Your task to perform on an android device: Check the news Image 0: 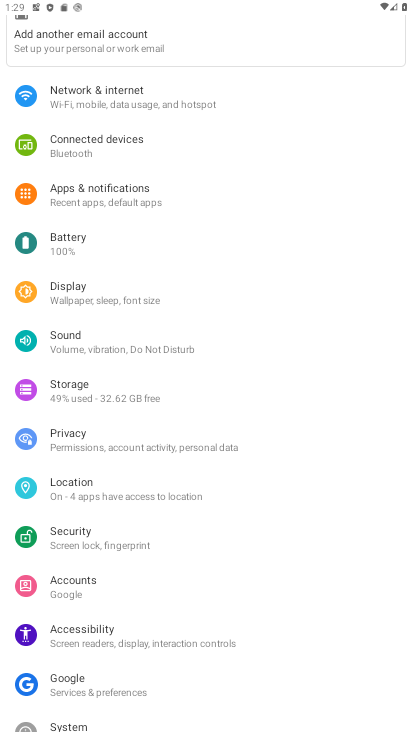
Step 0: press home button
Your task to perform on an android device: Check the news Image 1: 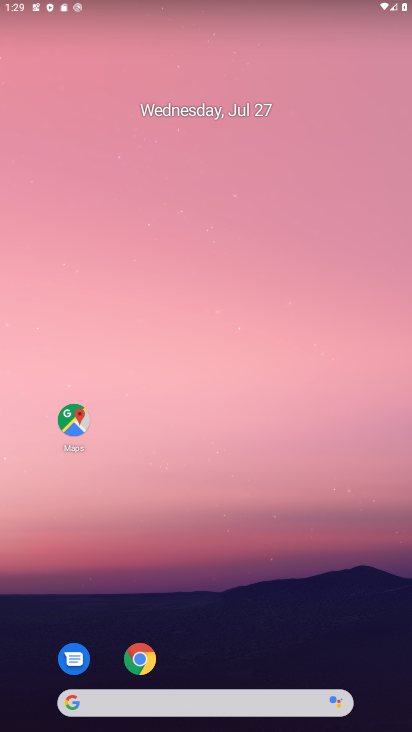
Step 1: drag from (271, 452) to (236, 34)
Your task to perform on an android device: Check the news Image 2: 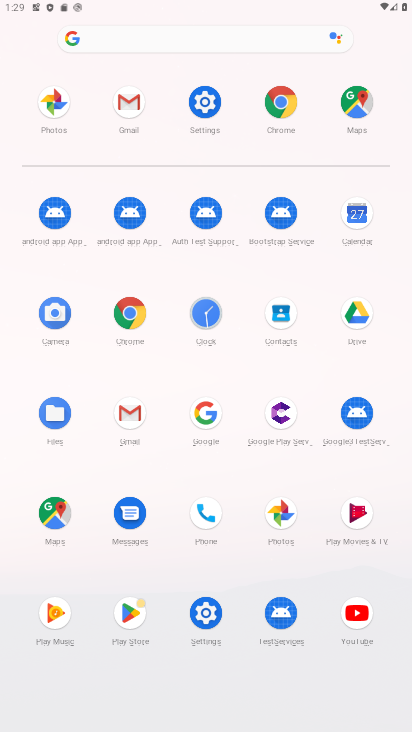
Step 2: click (133, 317)
Your task to perform on an android device: Check the news Image 3: 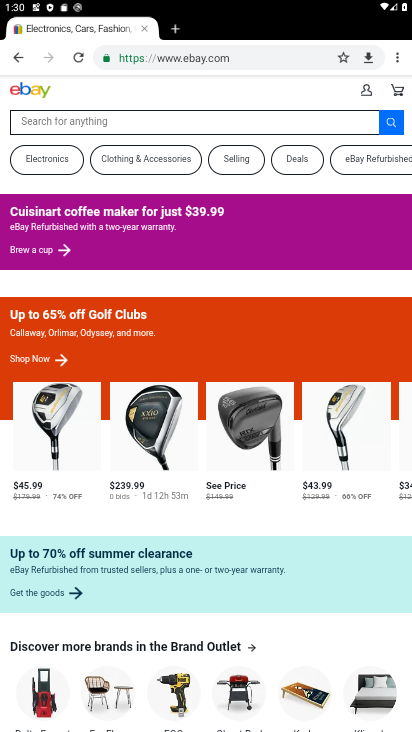
Step 3: click (280, 54)
Your task to perform on an android device: Check the news Image 4: 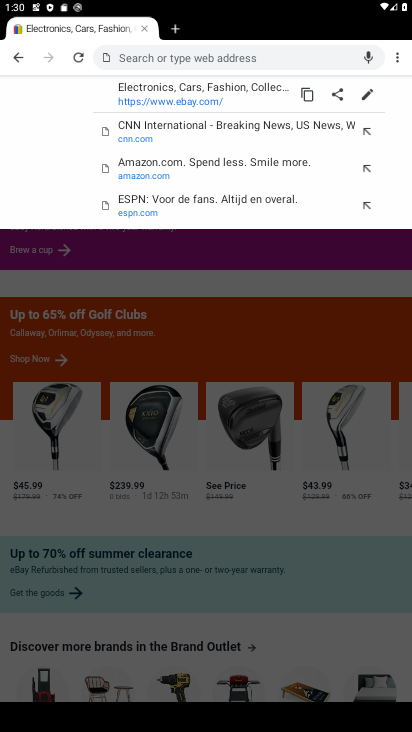
Step 4: type "news"
Your task to perform on an android device: Check the news Image 5: 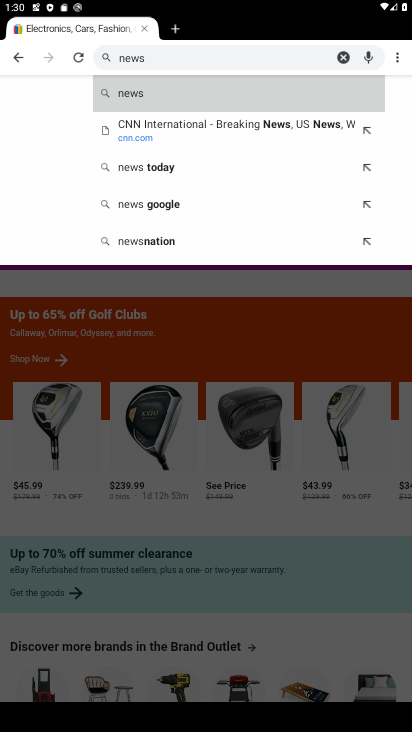
Step 5: click (140, 98)
Your task to perform on an android device: Check the news Image 6: 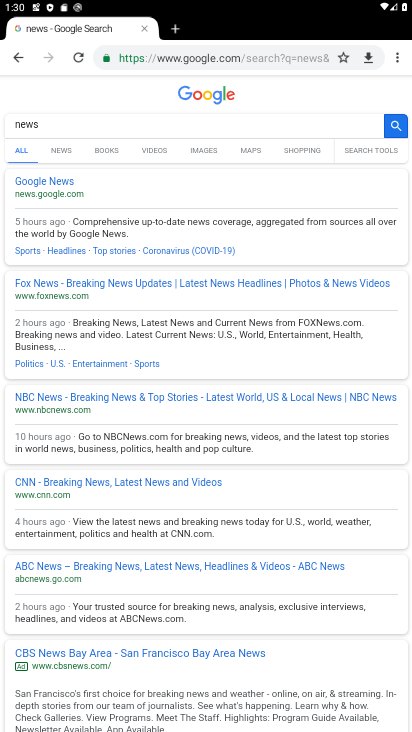
Step 6: click (45, 192)
Your task to perform on an android device: Check the news Image 7: 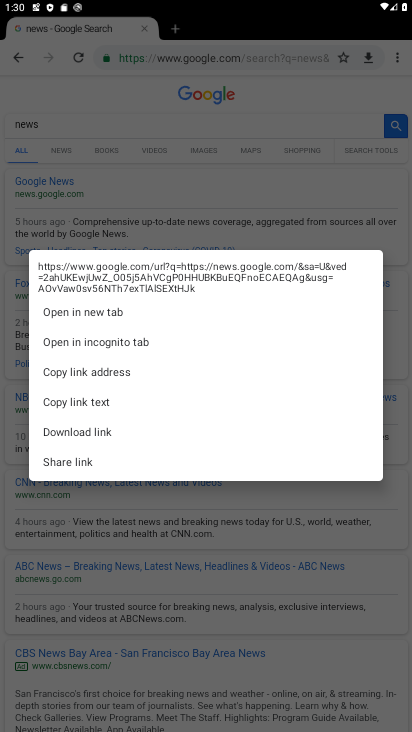
Step 7: click (55, 194)
Your task to perform on an android device: Check the news Image 8: 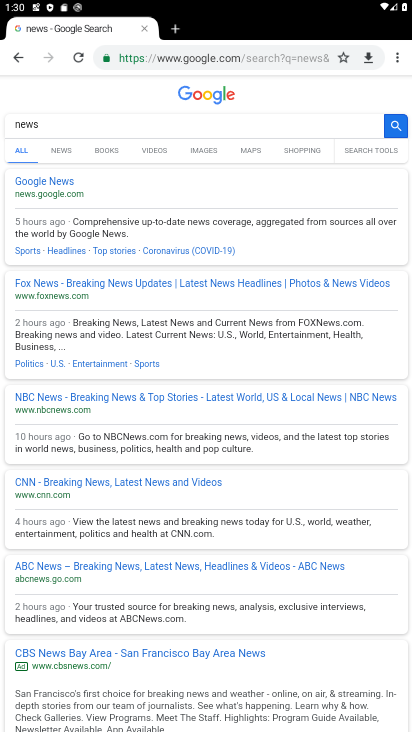
Step 8: click (55, 191)
Your task to perform on an android device: Check the news Image 9: 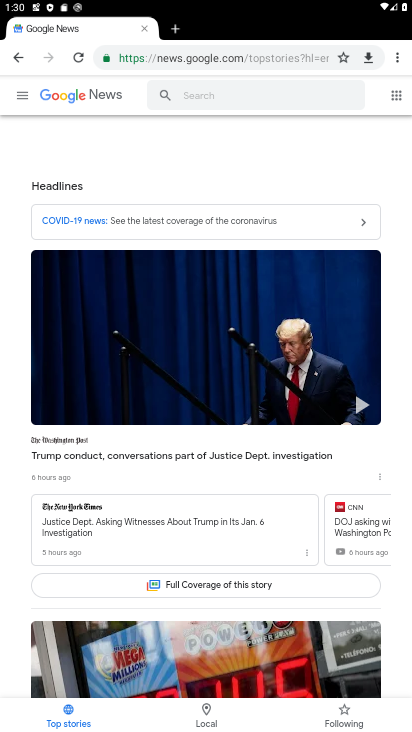
Step 9: task complete